Your task to perform on an android device: Open the web browser Image 0: 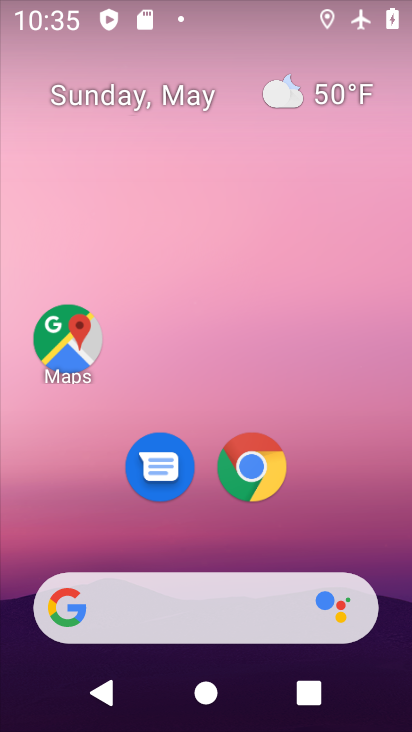
Step 0: click (250, 493)
Your task to perform on an android device: Open the web browser Image 1: 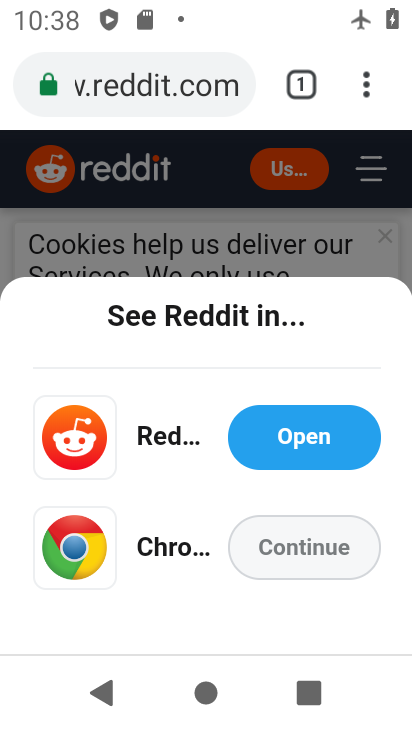
Step 1: task complete